Your task to perform on an android device: Clear the shopping cart on walmart.com. Image 0: 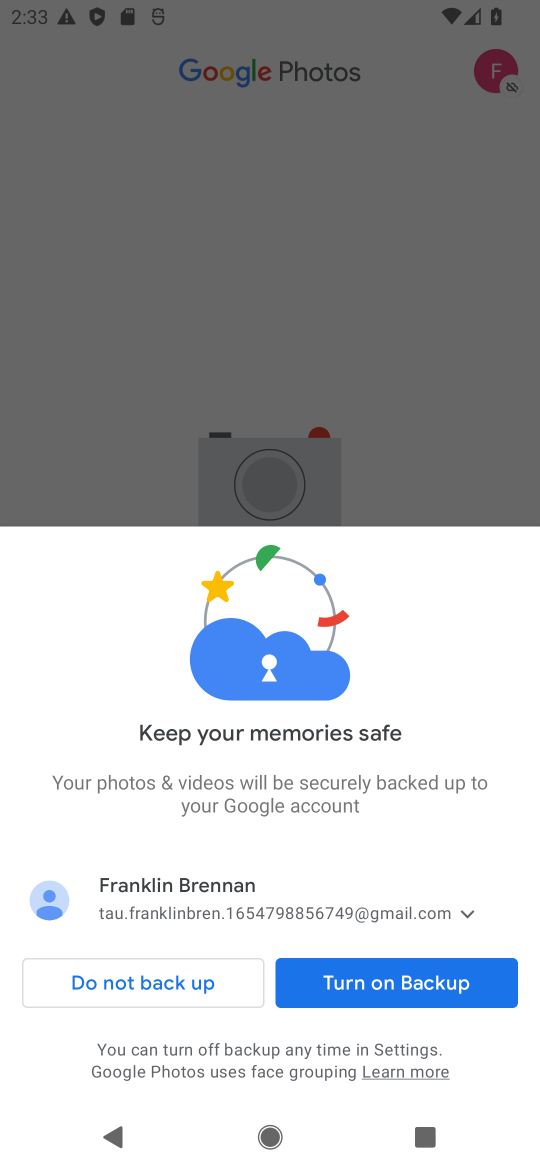
Step 0: press home button
Your task to perform on an android device: Clear the shopping cart on walmart.com. Image 1: 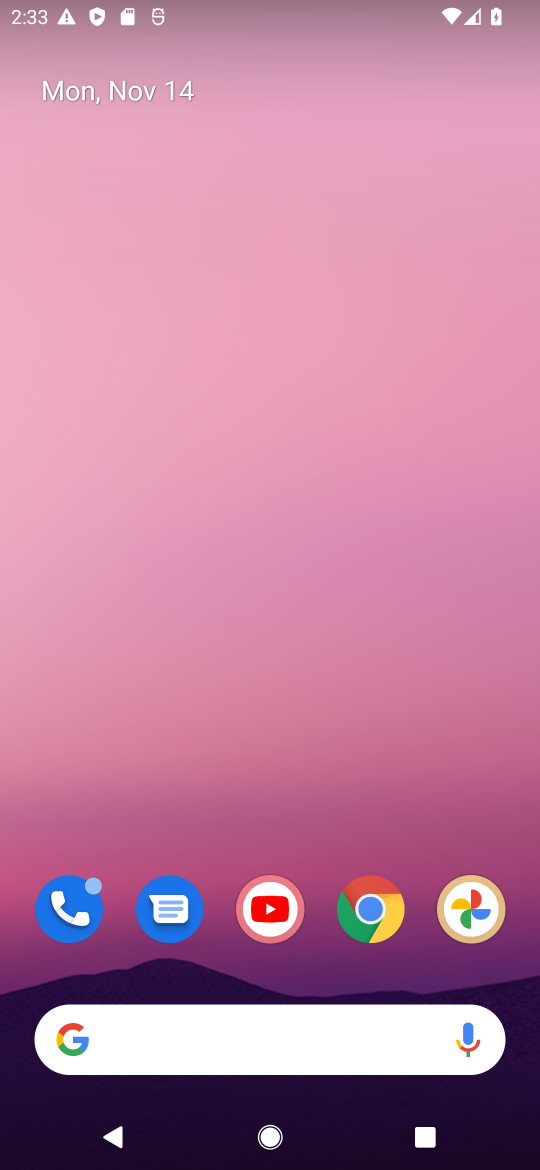
Step 1: drag from (344, 962) to (376, 132)
Your task to perform on an android device: Clear the shopping cart on walmart.com. Image 2: 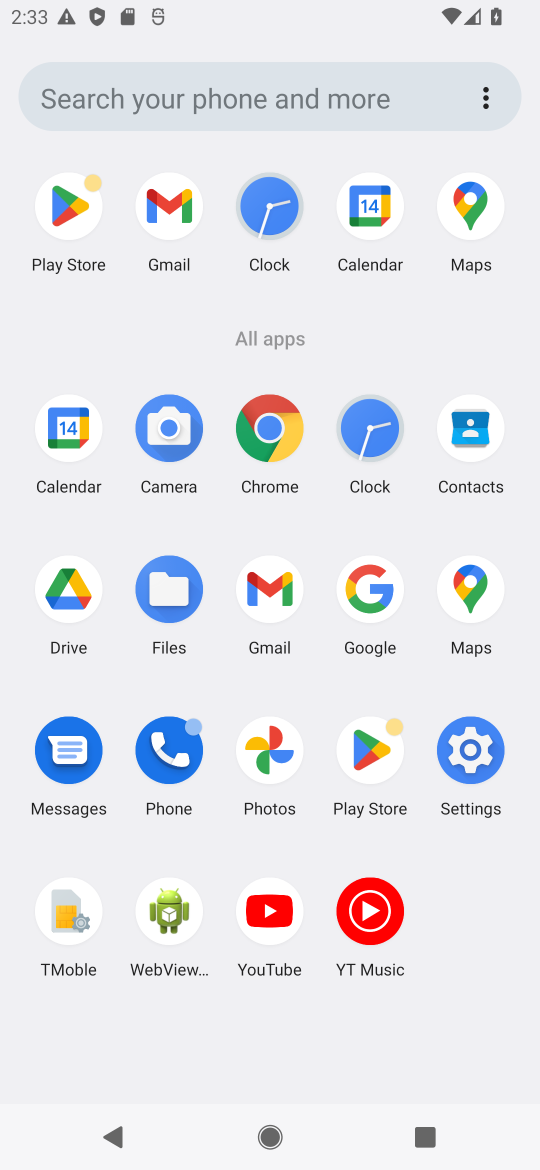
Step 2: click (282, 428)
Your task to perform on an android device: Clear the shopping cart on walmart.com. Image 3: 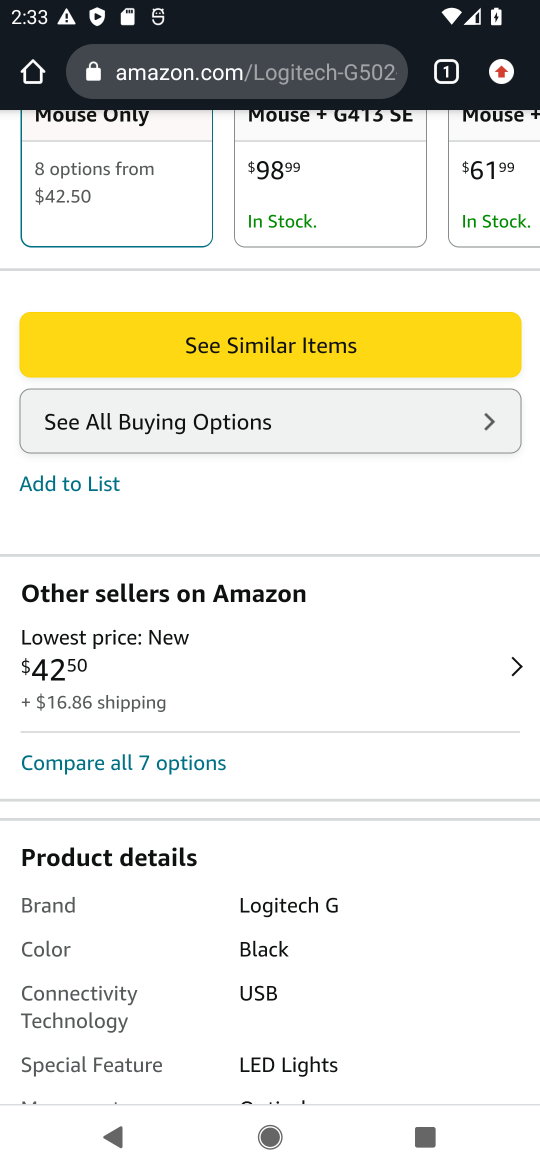
Step 3: click (316, 87)
Your task to perform on an android device: Clear the shopping cart on walmart.com. Image 4: 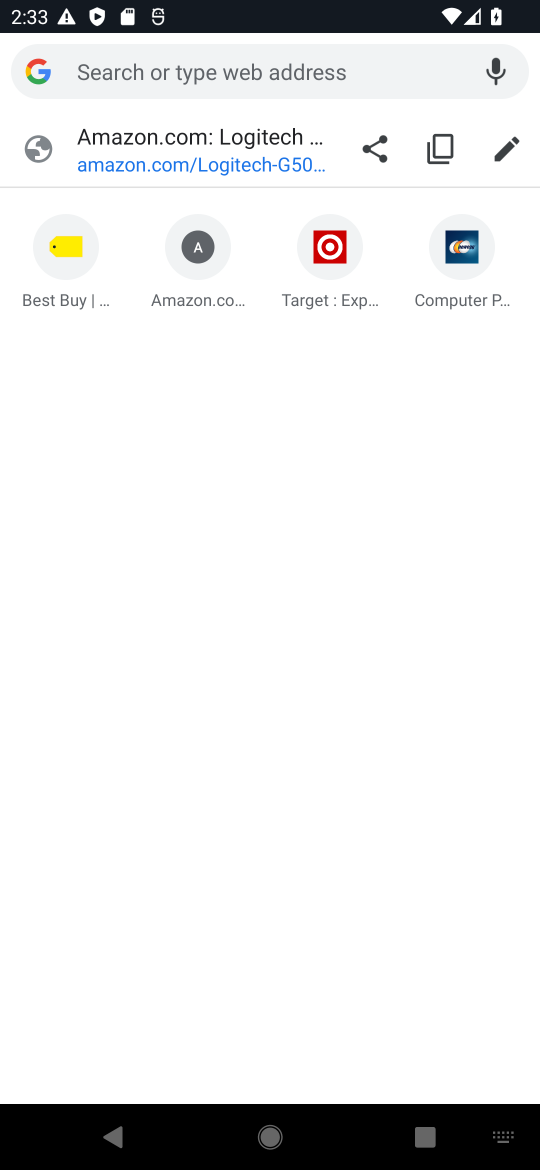
Step 4: type "walmart.com"
Your task to perform on an android device: Clear the shopping cart on walmart.com. Image 5: 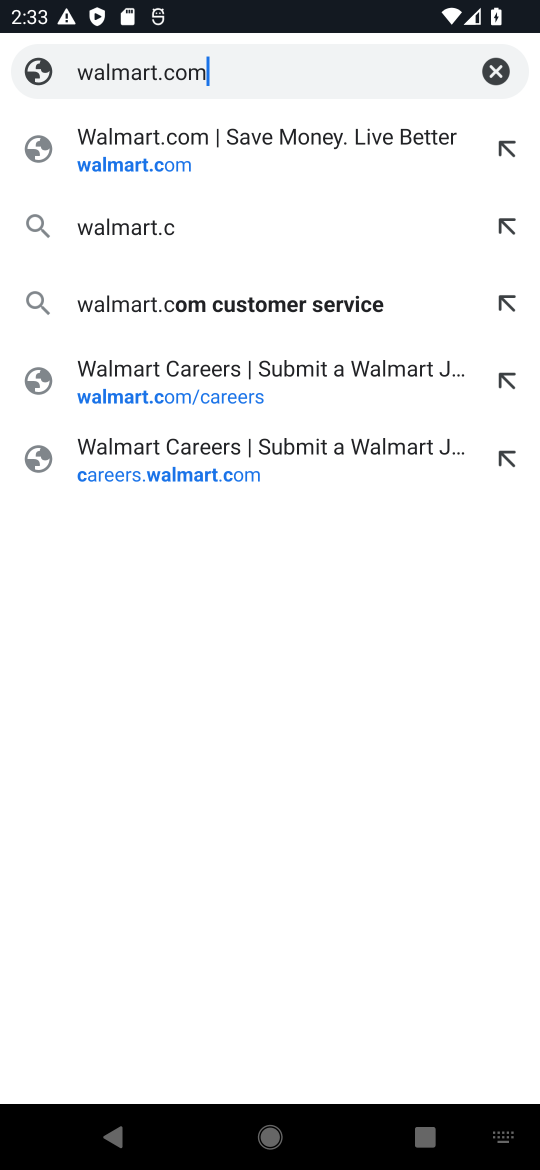
Step 5: press enter
Your task to perform on an android device: Clear the shopping cart on walmart.com. Image 6: 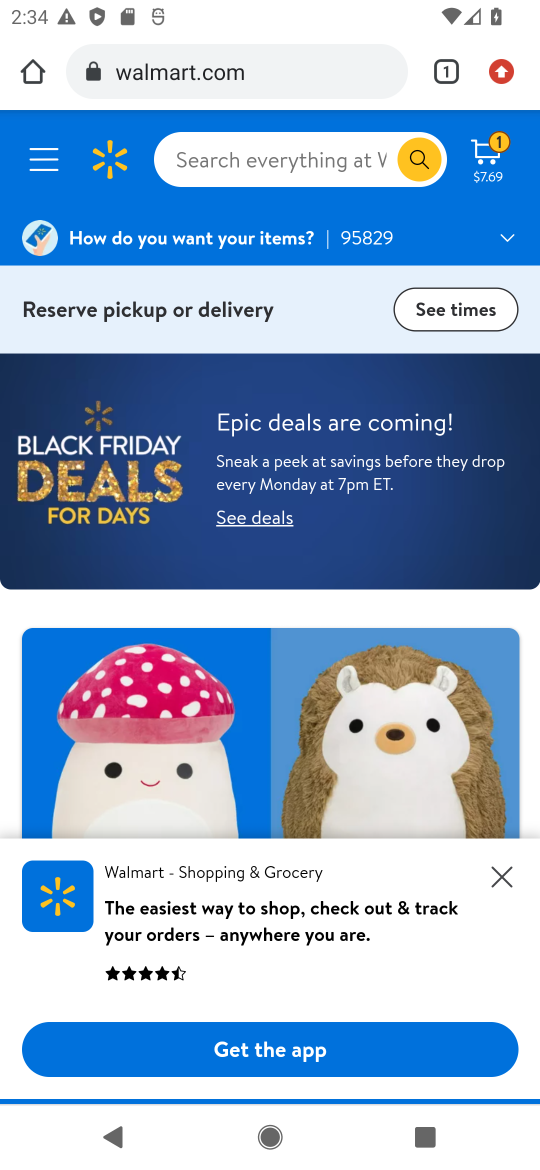
Step 6: click (317, 165)
Your task to perform on an android device: Clear the shopping cart on walmart.com. Image 7: 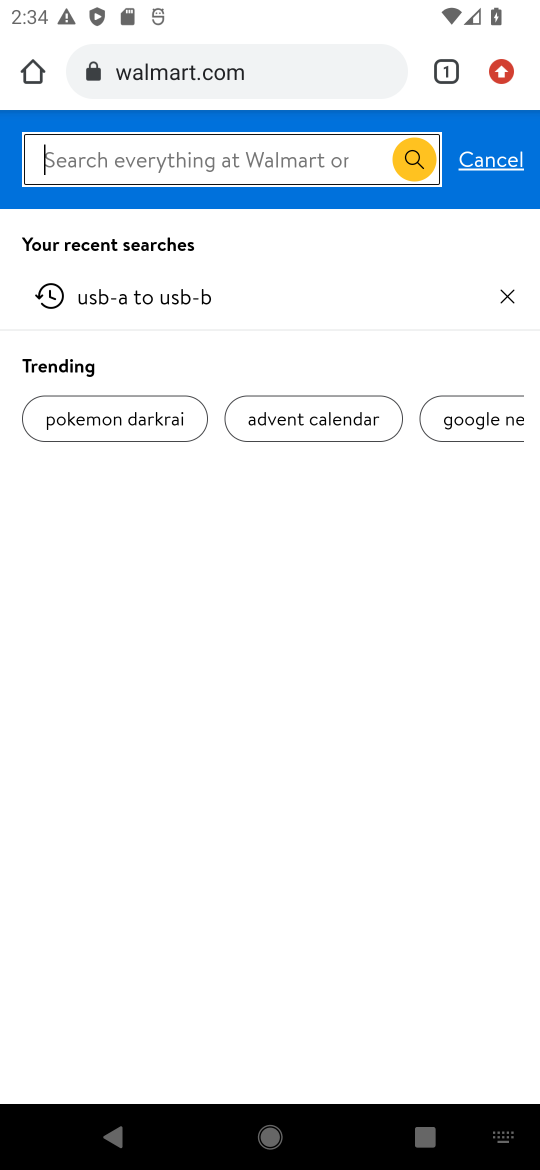
Step 7: click (486, 173)
Your task to perform on an android device: Clear the shopping cart on walmart.com. Image 8: 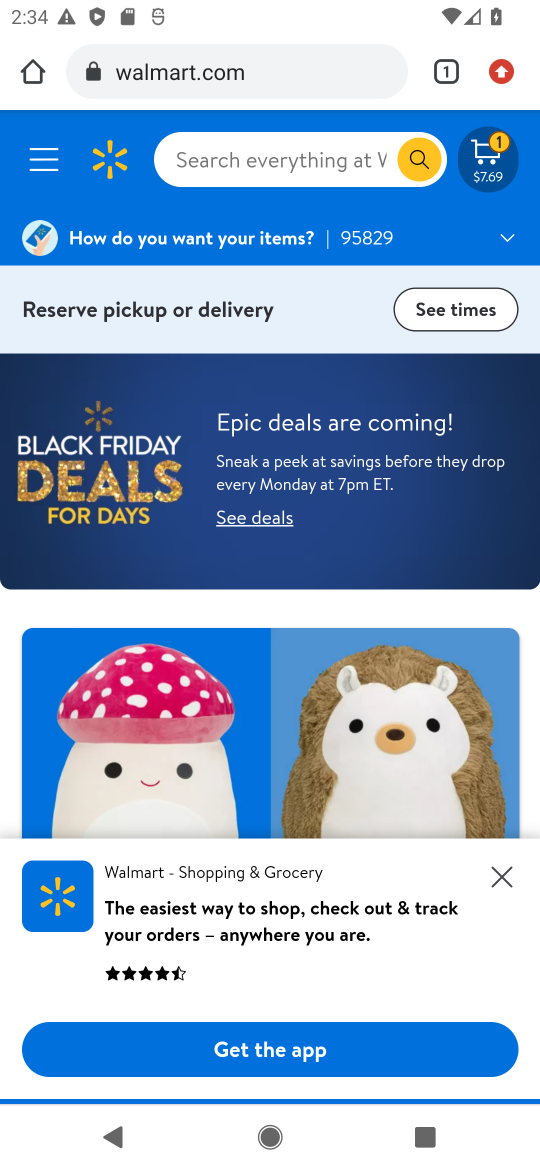
Step 8: click (494, 161)
Your task to perform on an android device: Clear the shopping cart on walmart.com. Image 9: 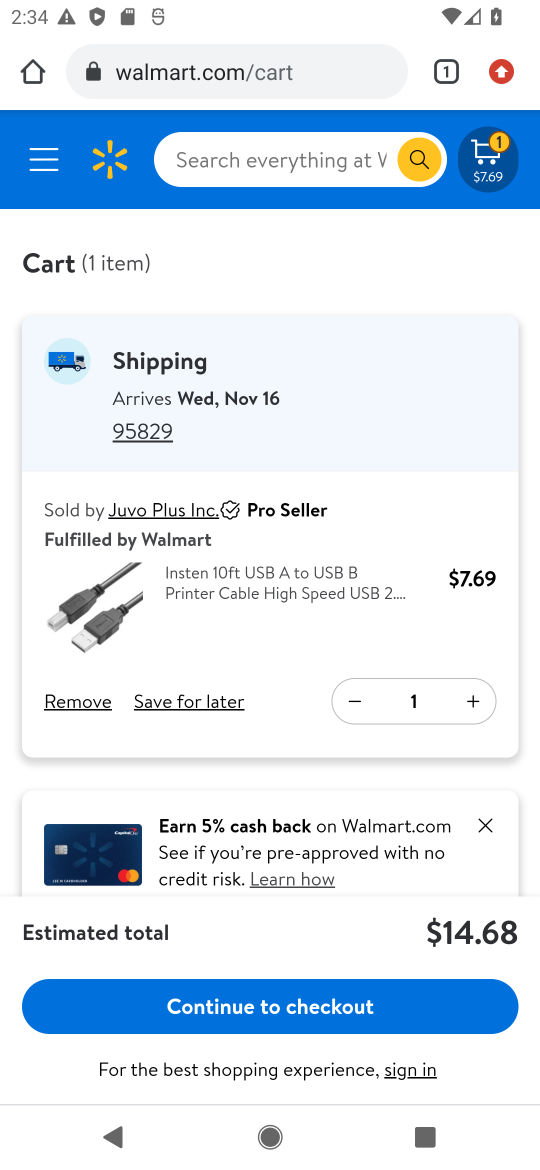
Step 9: click (69, 696)
Your task to perform on an android device: Clear the shopping cart on walmart.com. Image 10: 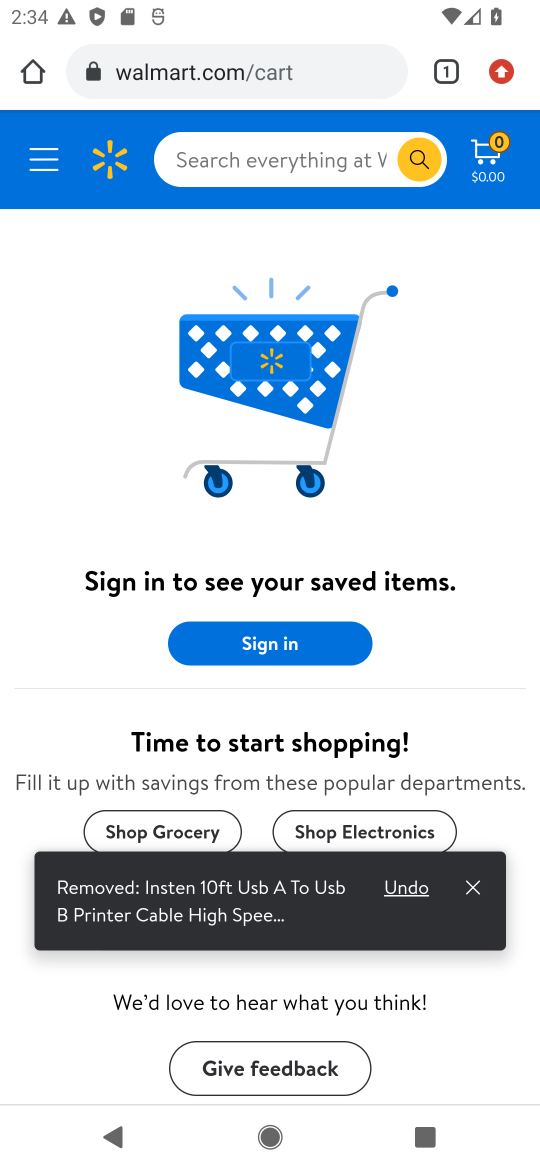
Step 10: task complete